Your task to perform on an android device: delete browsing data in the chrome app Image 0: 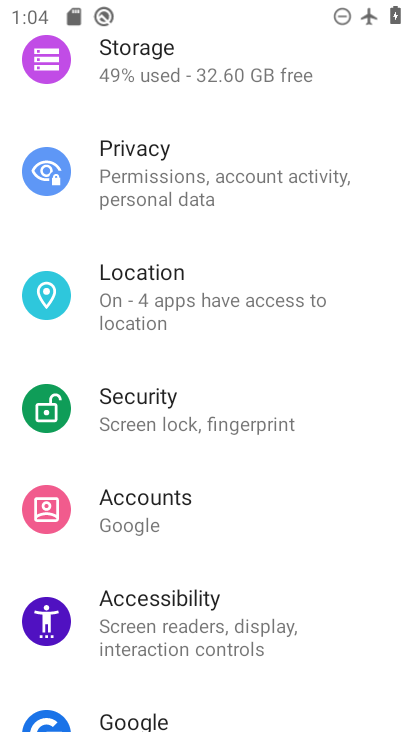
Step 0: press home button
Your task to perform on an android device: delete browsing data in the chrome app Image 1: 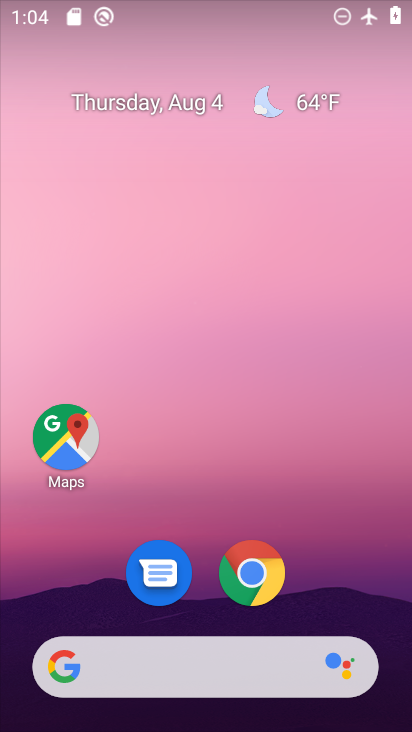
Step 1: drag from (350, 542) to (283, 125)
Your task to perform on an android device: delete browsing data in the chrome app Image 2: 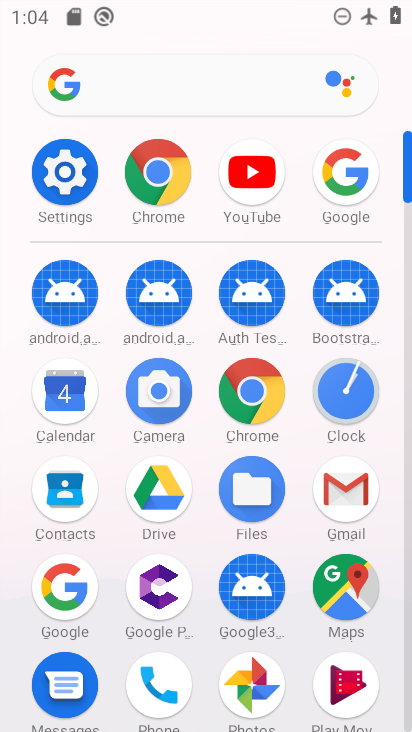
Step 2: click (250, 377)
Your task to perform on an android device: delete browsing data in the chrome app Image 3: 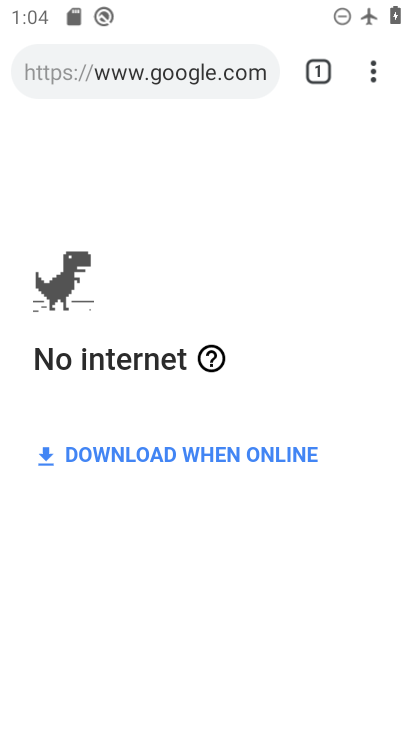
Step 3: drag from (373, 57) to (120, 390)
Your task to perform on an android device: delete browsing data in the chrome app Image 4: 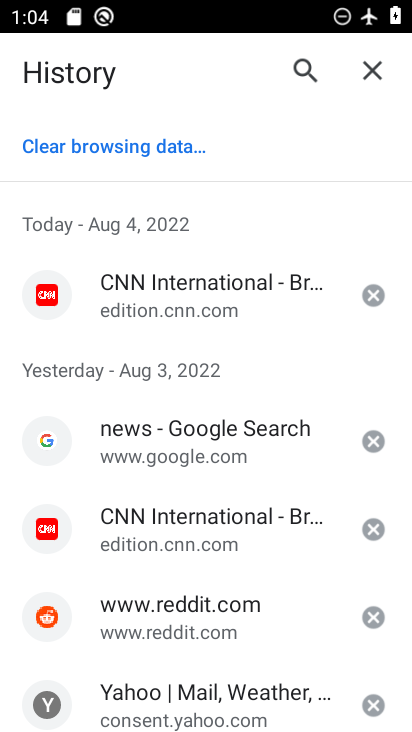
Step 4: click (77, 130)
Your task to perform on an android device: delete browsing data in the chrome app Image 5: 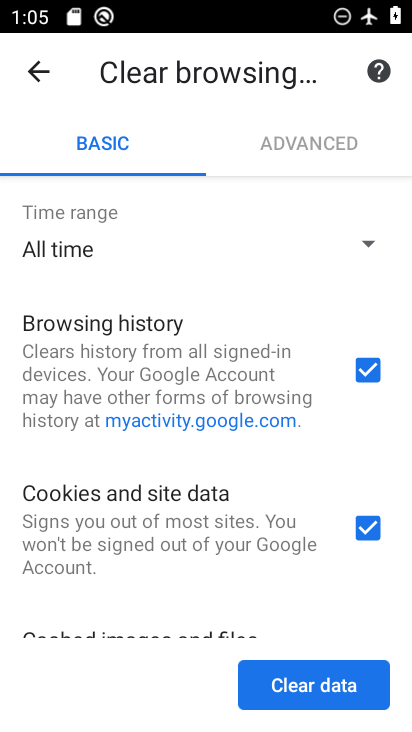
Step 5: click (320, 697)
Your task to perform on an android device: delete browsing data in the chrome app Image 6: 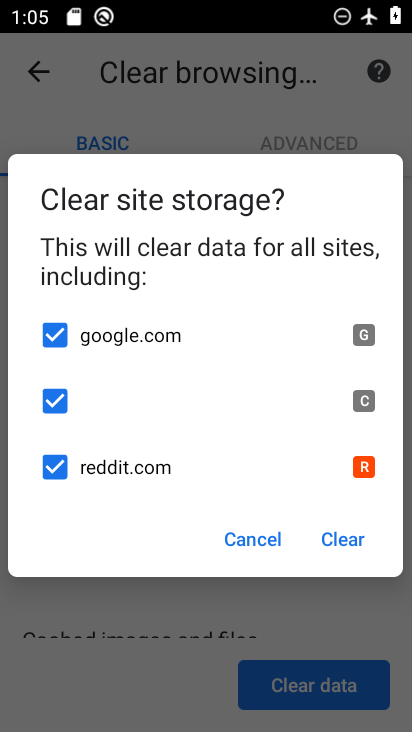
Step 6: click (349, 546)
Your task to perform on an android device: delete browsing data in the chrome app Image 7: 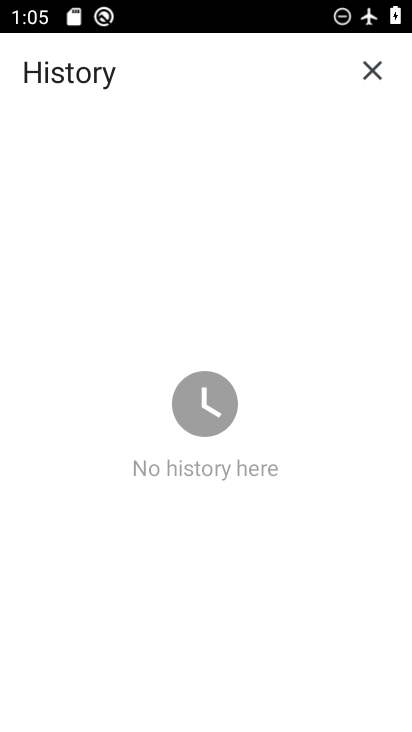
Step 7: task complete